Your task to perform on an android device: Go to eBay Image 0: 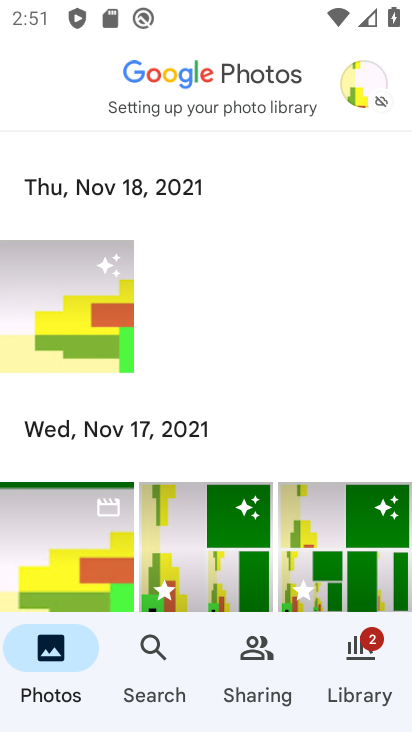
Step 0: press home button
Your task to perform on an android device: Go to eBay Image 1: 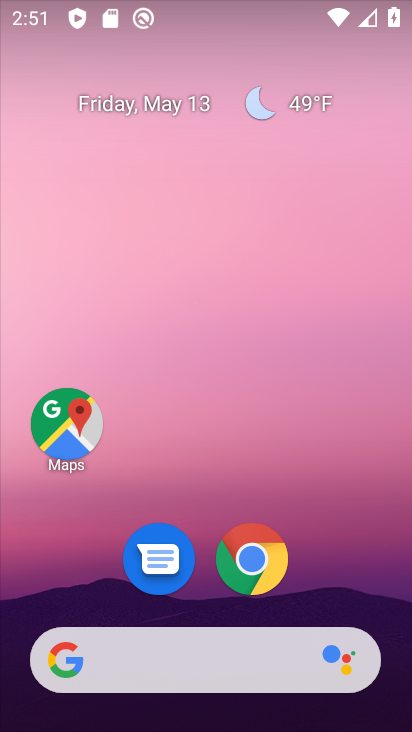
Step 1: click (256, 558)
Your task to perform on an android device: Go to eBay Image 2: 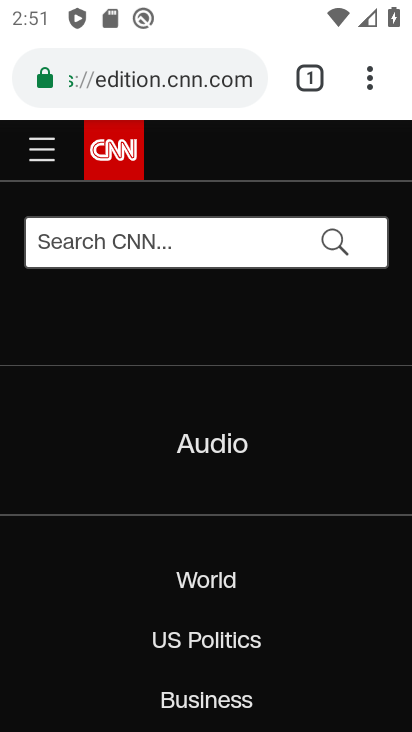
Step 2: click (154, 78)
Your task to perform on an android device: Go to eBay Image 3: 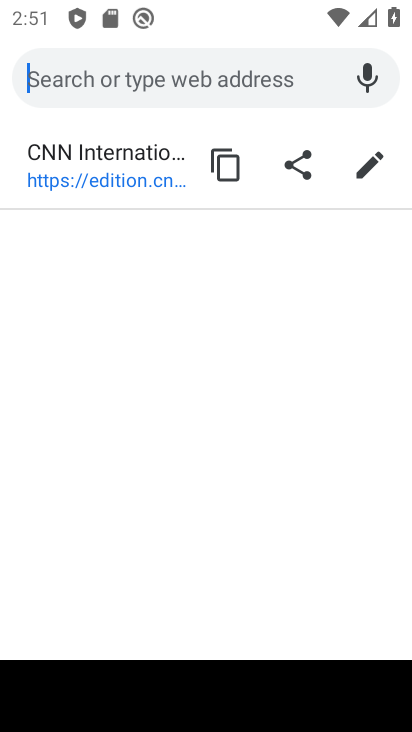
Step 3: type "ebay"
Your task to perform on an android device: Go to eBay Image 4: 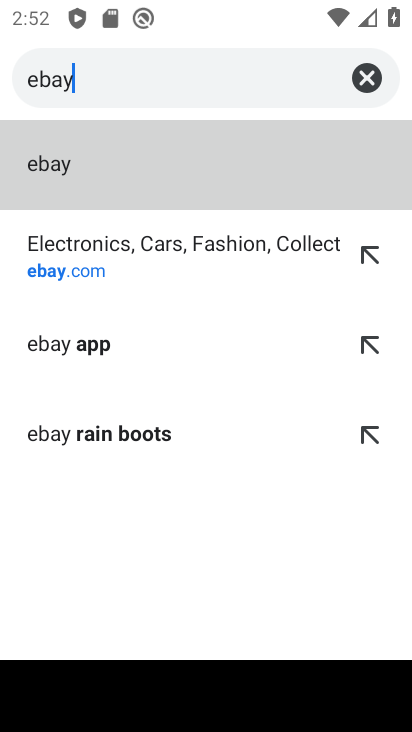
Step 4: click (68, 156)
Your task to perform on an android device: Go to eBay Image 5: 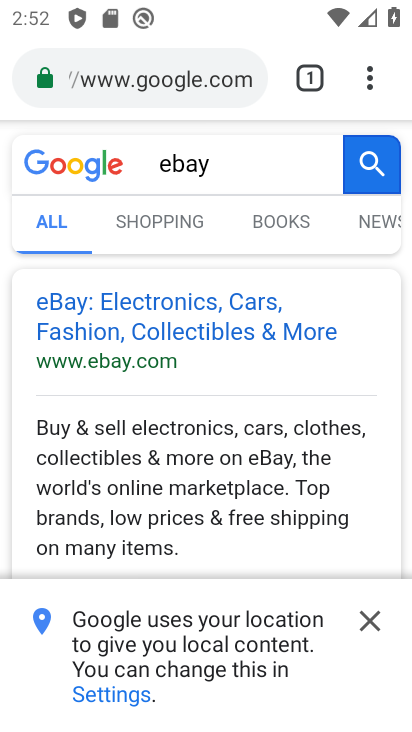
Step 5: click (115, 328)
Your task to perform on an android device: Go to eBay Image 6: 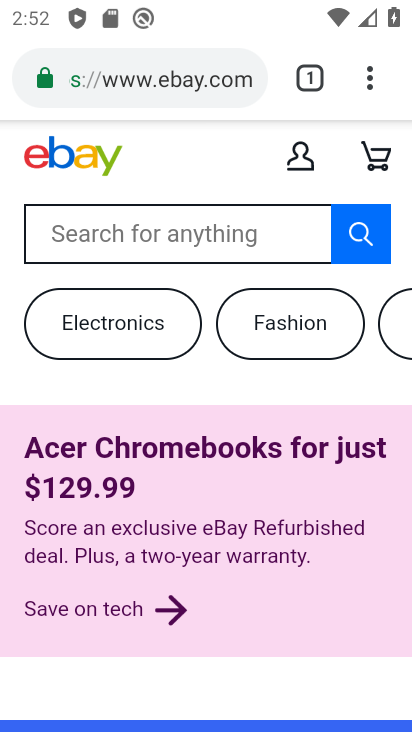
Step 6: task complete